Your task to perform on an android device: What's the weather? Image 0: 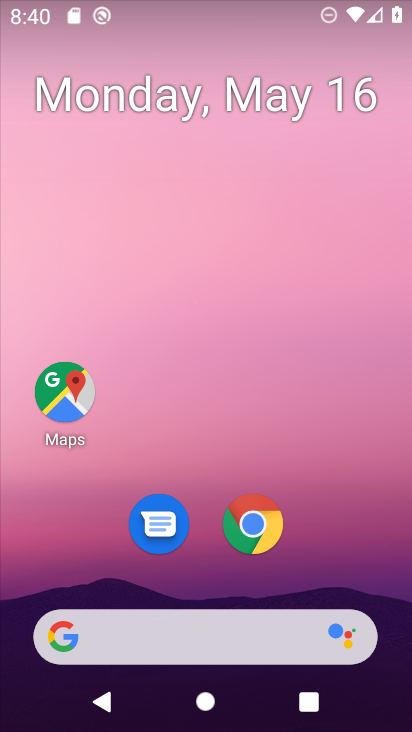
Step 0: click (216, 640)
Your task to perform on an android device: What's the weather? Image 1: 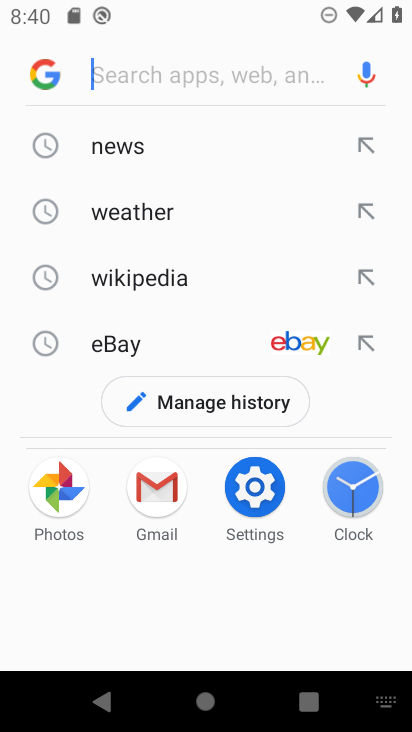
Step 1: click (115, 203)
Your task to perform on an android device: What's the weather? Image 2: 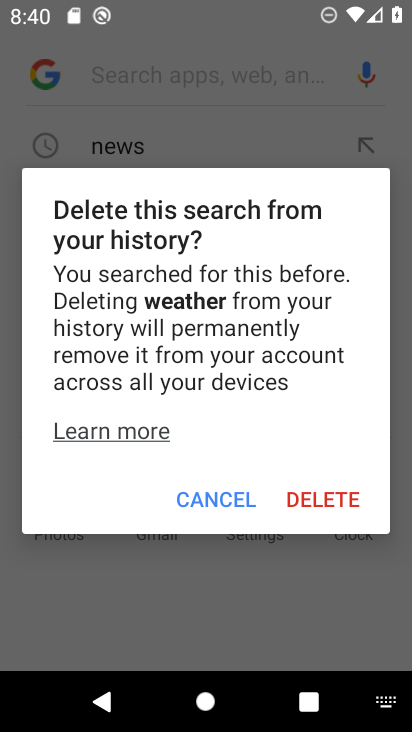
Step 2: click (209, 495)
Your task to perform on an android device: What's the weather? Image 3: 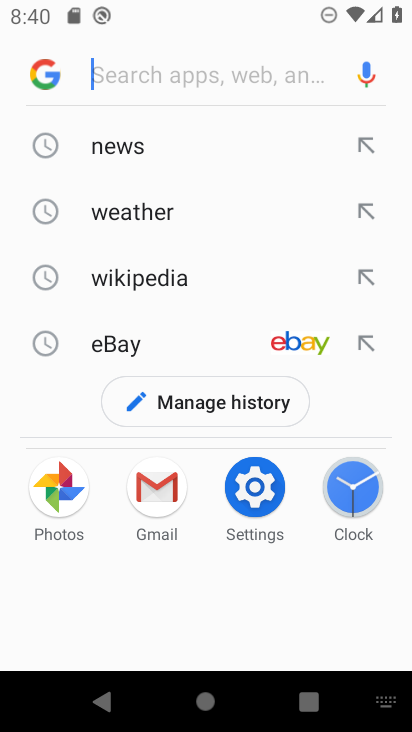
Step 3: click (147, 206)
Your task to perform on an android device: What's the weather? Image 4: 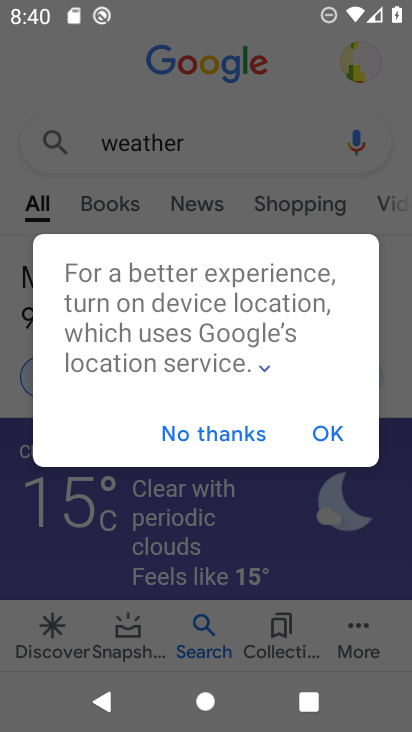
Step 4: click (213, 423)
Your task to perform on an android device: What's the weather? Image 5: 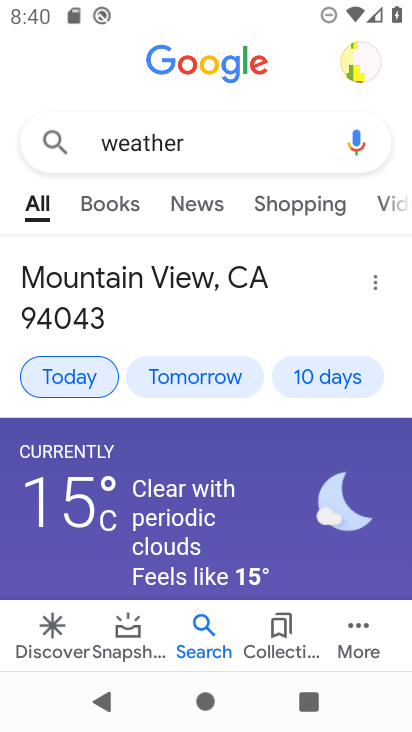
Step 5: click (94, 369)
Your task to perform on an android device: What's the weather? Image 6: 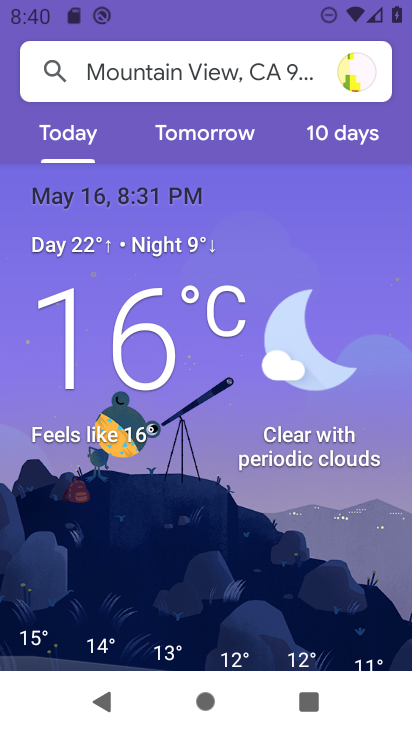
Step 6: task complete